Your task to perform on an android device: When is my next meeting? Image 0: 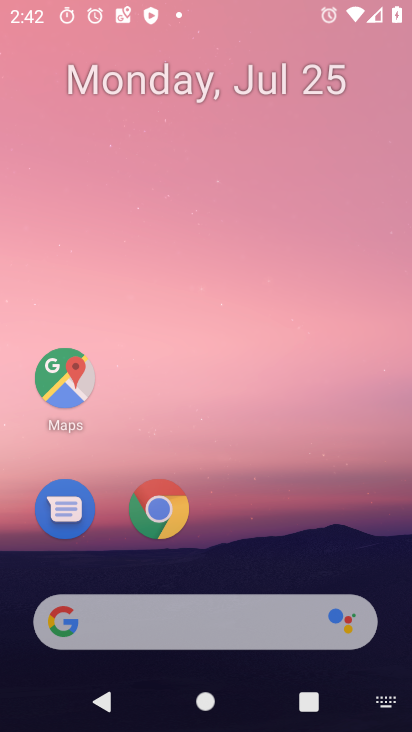
Step 0: press home button
Your task to perform on an android device: When is my next meeting? Image 1: 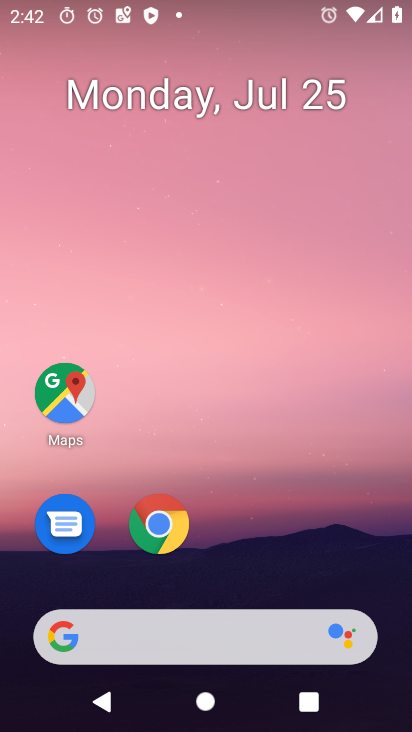
Step 1: drag from (280, 535) to (321, 6)
Your task to perform on an android device: When is my next meeting? Image 2: 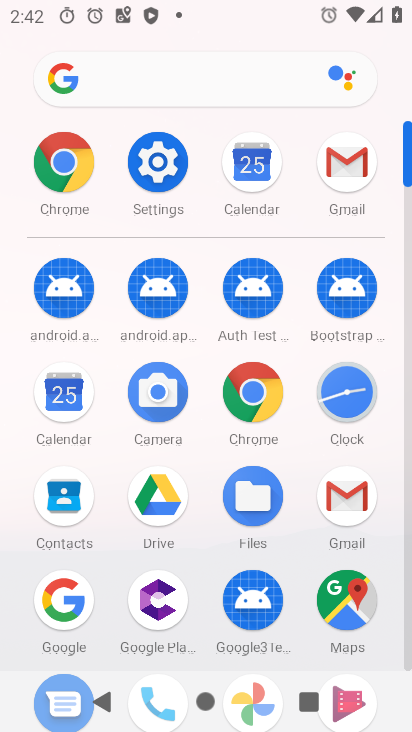
Step 2: click (248, 161)
Your task to perform on an android device: When is my next meeting? Image 3: 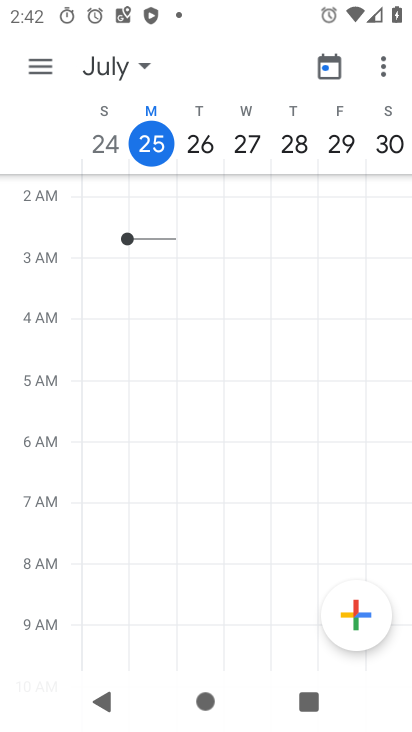
Step 3: click (40, 53)
Your task to perform on an android device: When is my next meeting? Image 4: 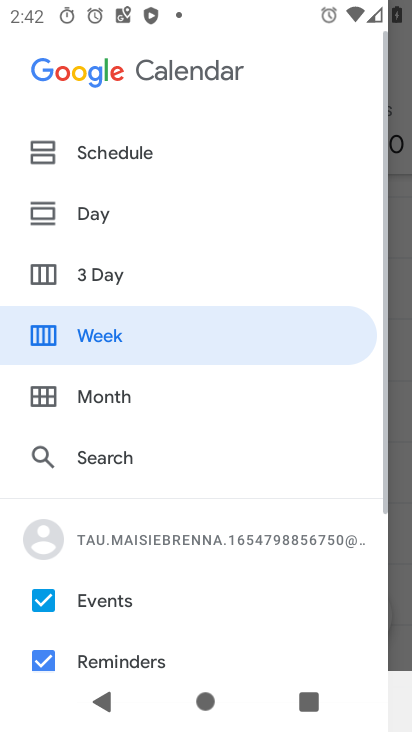
Step 4: click (108, 157)
Your task to perform on an android device: When is my next meeting? Image 5: 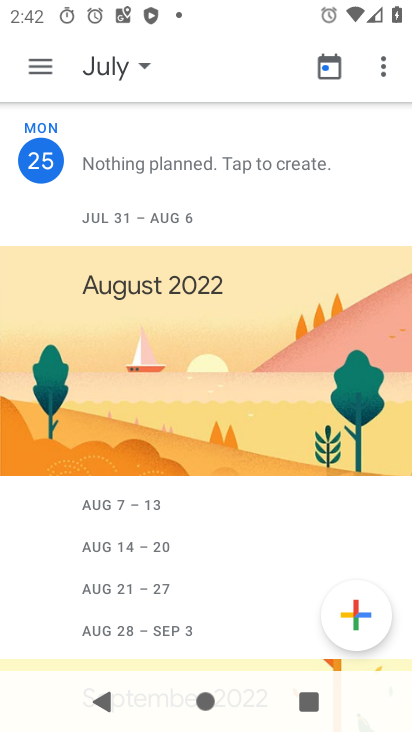
Step 5: task complete